Your task to perform on an android device: choose inbox layout in the gmail app Image 0: 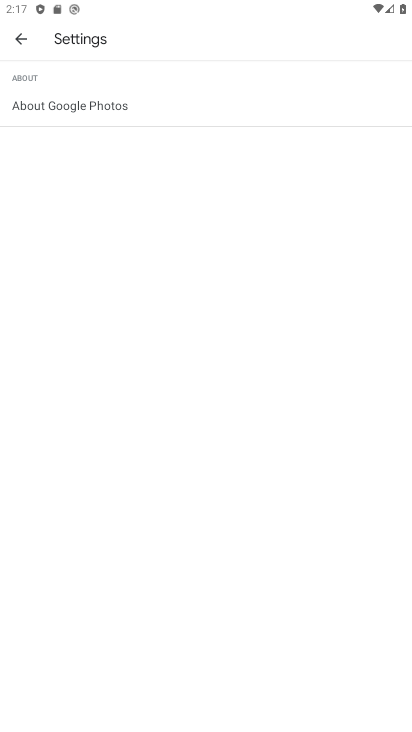
Step 0: press home button
Your task to perform on an android device: choose inbox layout in the gmail app Image 1: 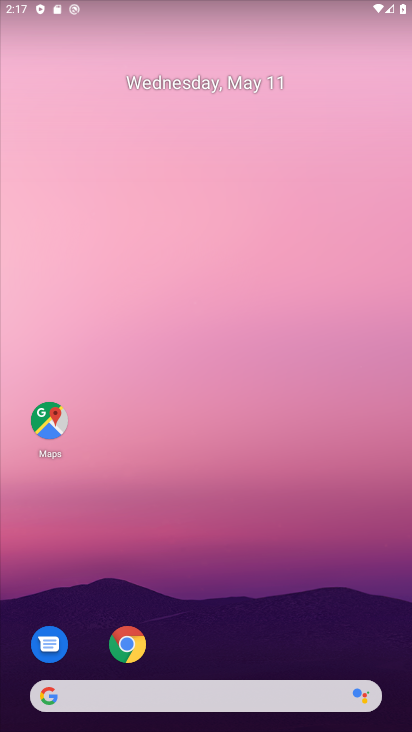
Step 1: drag from (235, 616) to (274, 252)
Your task to perform on an android device: choose inbox layout in the gmail app Image 2: 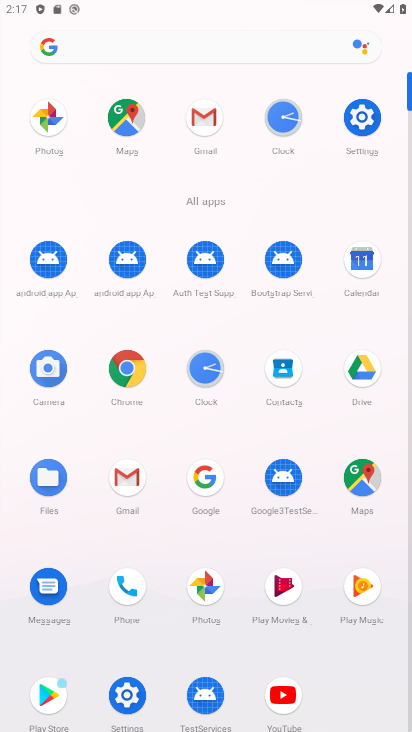
Step 2: click (118, 484)
Your task to perform on an android device: choose inbox layout in the gmail app Image 3: 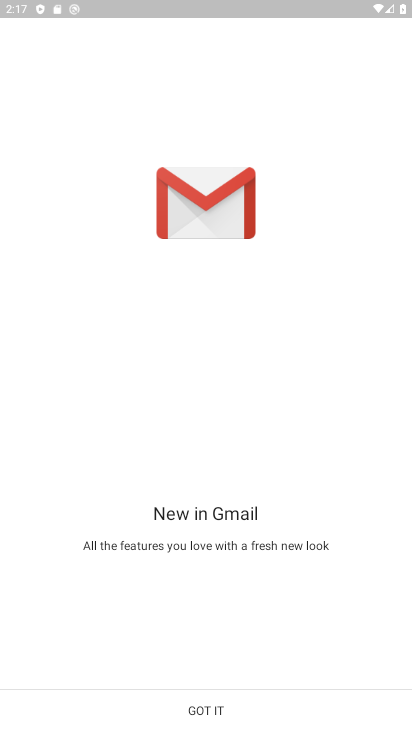
Step 3: click (219, 706)
Your task to perform on an android device: choose inbox layout in the gmail app Image 4: 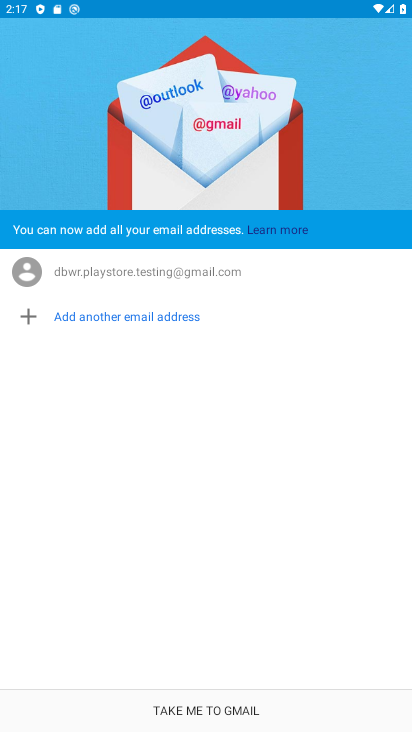
Step 4: click (219, 706)
Your task to perform on an android device: choose inbox layout in the gmail app Image 5: 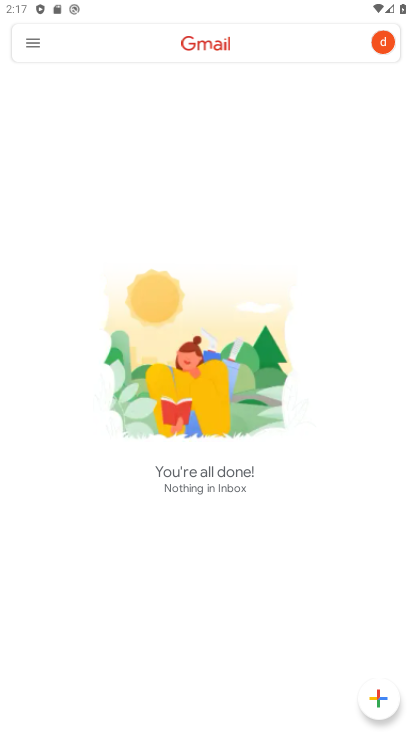
Step 5: click (30, 42)
Your task to perform on an android device: choose inbox layout in the gmail app Image 6: 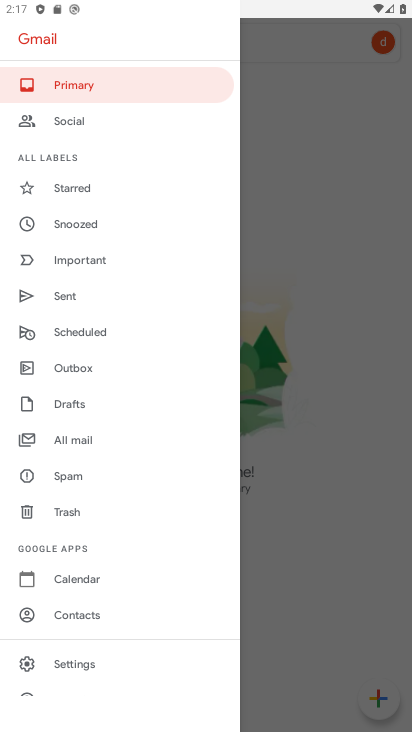
Step 6: click (73, 661)
Your task to perform on an android device: choose inbox layout in the gmail app Image 7: 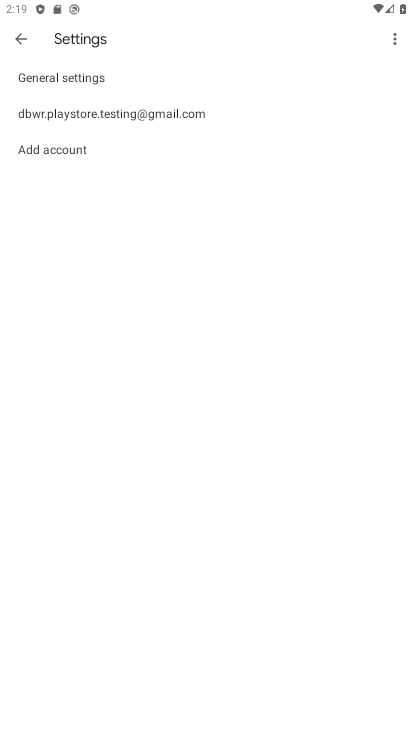
Step 7: click (52, 109)
Your task to perform on an android device: choose inbox layout in the gmail app Image 8: 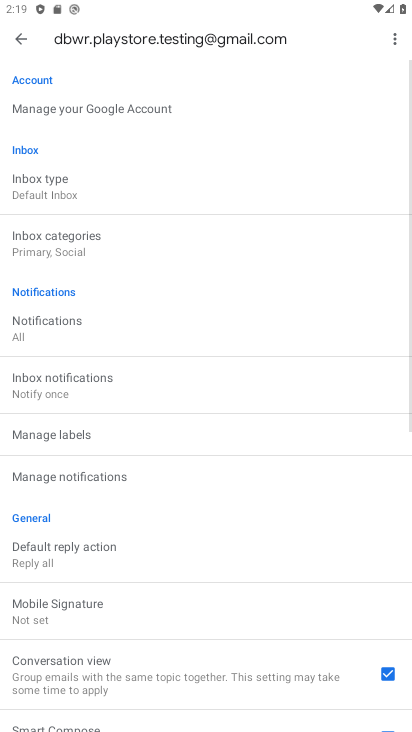
Step 8: click (49, 194)
Your task to perform on an android device: choose inbox layout in the gmail app Image 9: 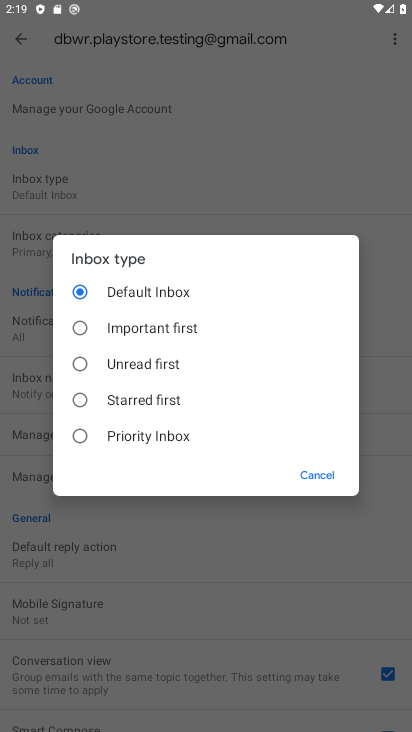
Step 9: click (139, 435)
Your task to perform on an android device: choose inbox layout in the gmail app Image 10: 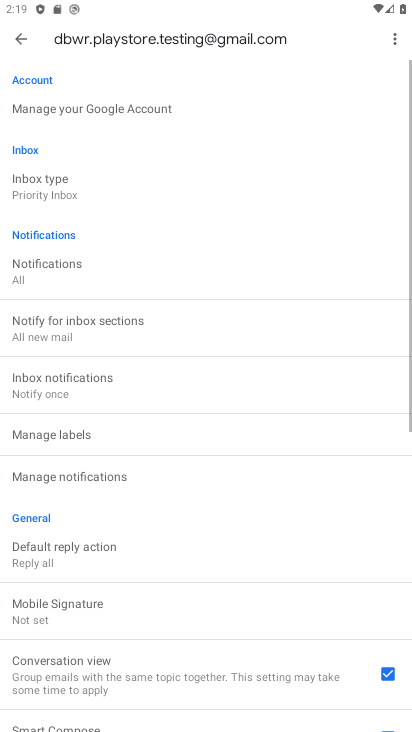
Step 10: task complete